Your task to perform on an android device: change alarm snooze length Image 0: 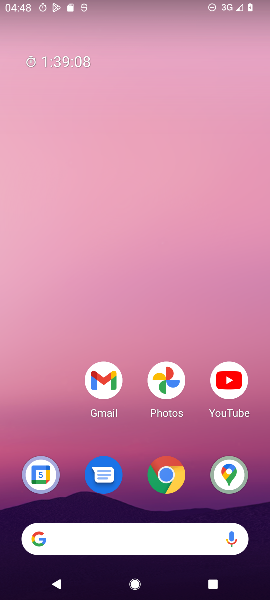
Step 0: press home button
Your task to perform on an android device: change alarm snooze length Image 1: 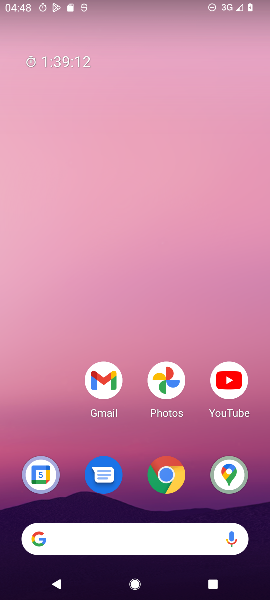
Step 1: drag from (64, 430) to (59, 215)
Your task to perform on an android device: change alarm snooze length Image 2: 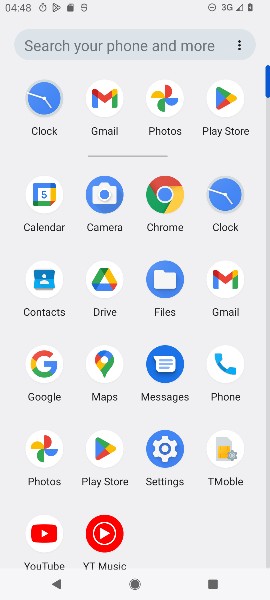
Step 2: click (223, 193)
Your task to perform on an android device: change alarm snooze length Image 3: 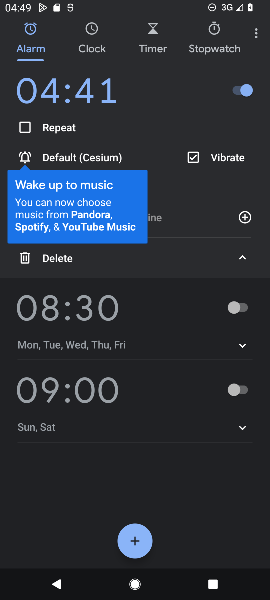
Step 3: click (255, 34)
Your task to perform on an android device: change alarm snooze length Image 4: 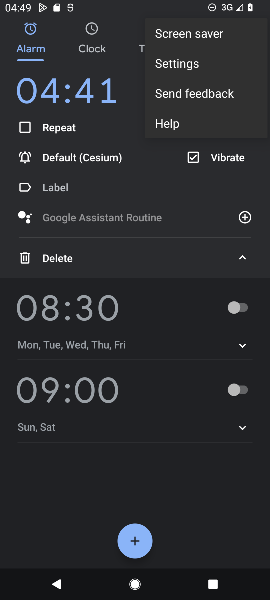
Step 4: click (194, 65)
Your task to perform on an android device: change alarm snooze length Image 5: 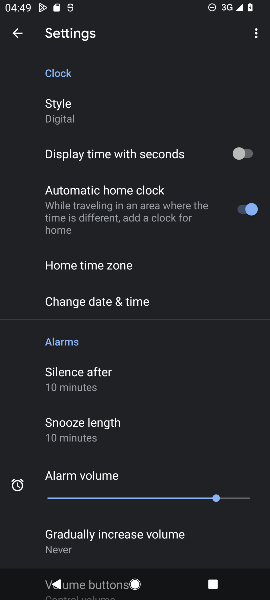
Step 5: click (100, 428)
Your task to perform on an android device: change alarm snooze length Image 6: 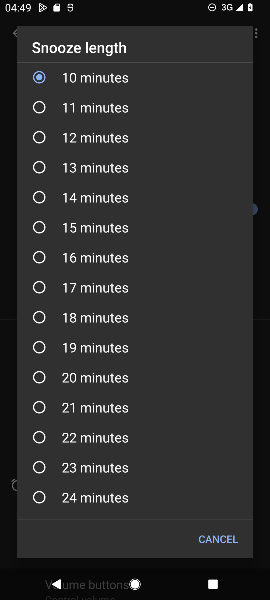
Step 6: click (96, 346)
Your task to perform on an android device: change alarm snooze length Image 7: 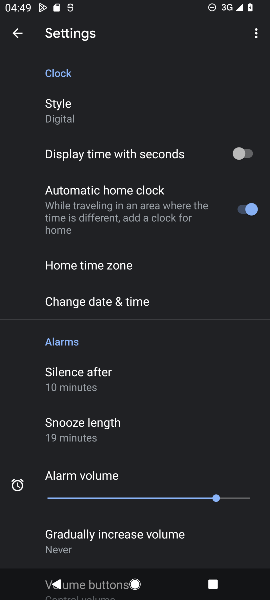
Step 7: task complete